Your task to perform on an android device: What's the weather going to be tomorrow? Image 0: 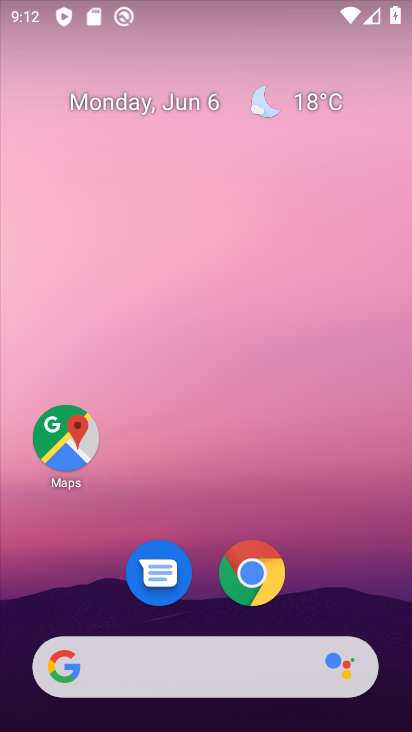
Step 0: click (280, 576)
Your task to perform on an android device: What's the weather going to be tomorrow? Image 1: 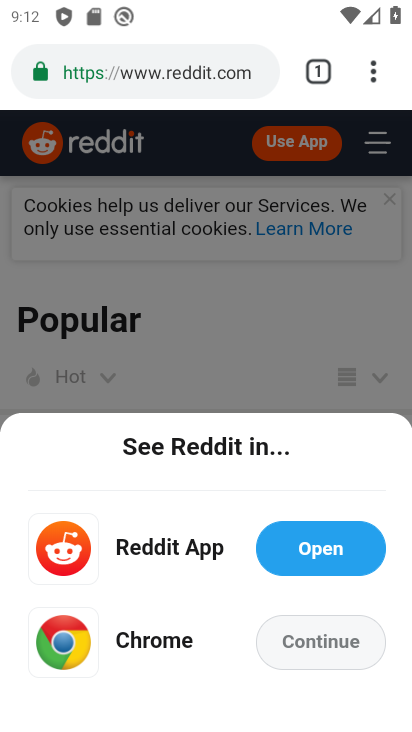
Step 1: click (184, 65)
Your task to perform on an android device: What's the weather going to be tomorrow? Image 2: 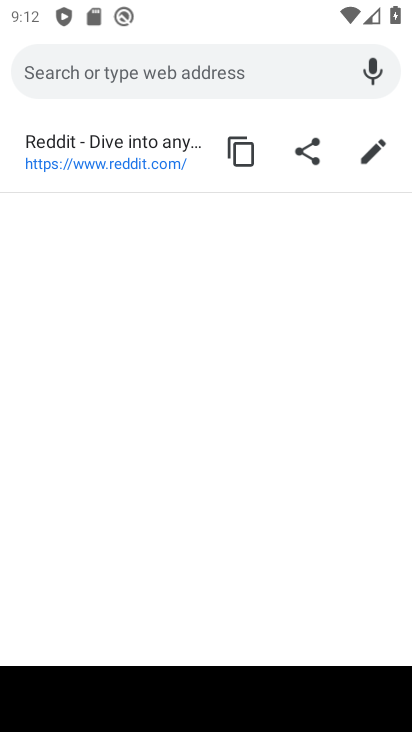
Step 2: type "What's the weather going to be tomorrow?"
Your task to perform on an android device: What's the weather going to be tomorrow? Image 3: 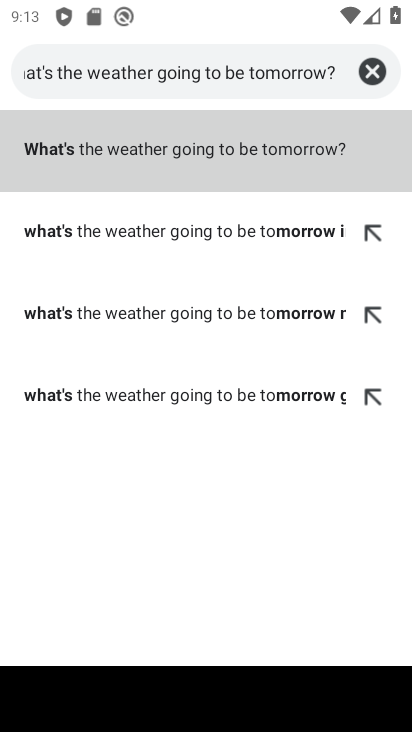
Step 3: press enter
Your task to perform on an android device: What's the weather going to be tomorrow? Image 4: 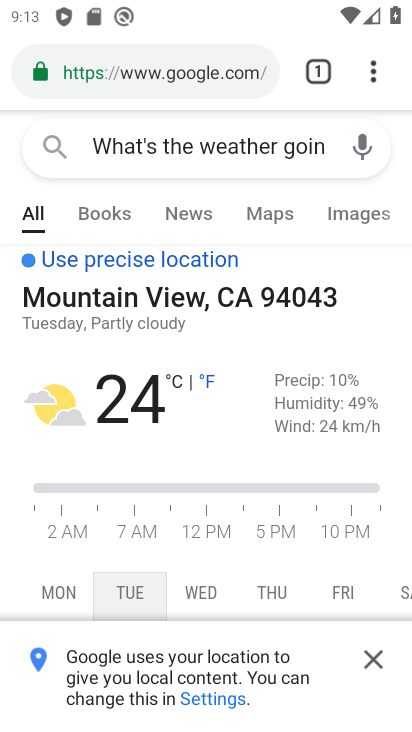
Step 4: click (367, 659)
Your task to perform on an android device: What's the weather going to be tomorrow? Image 5: 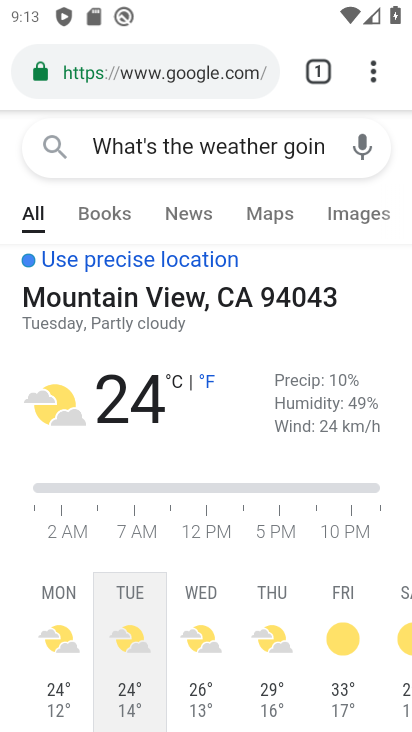
Step 5: click (208, 649)
Your task to perform on an android device: What's the weather going to be tomorrow? Image 6: 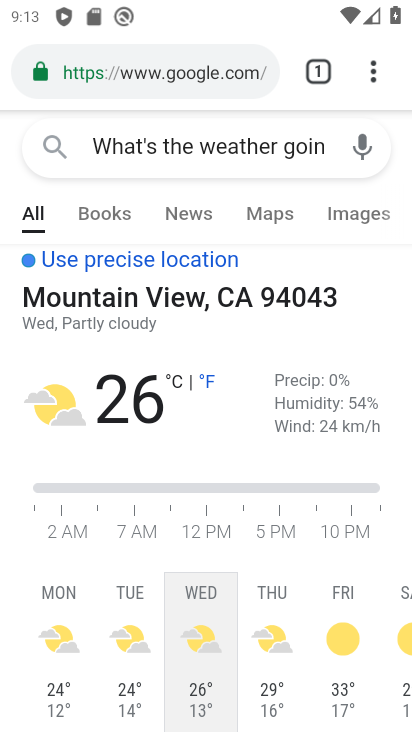
Step 6: task complete